Your task to perform on an android device: turn off data saver in the chrome app Image 0: 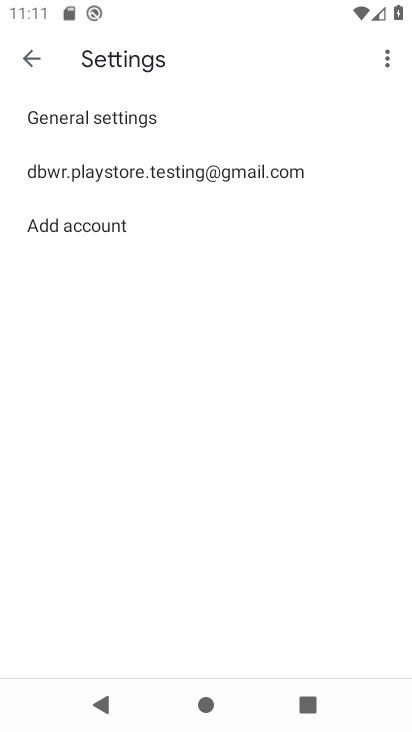
Step 0: press home button
Your task to perform on an android device: turn off data saver in the chrome app Image 1: 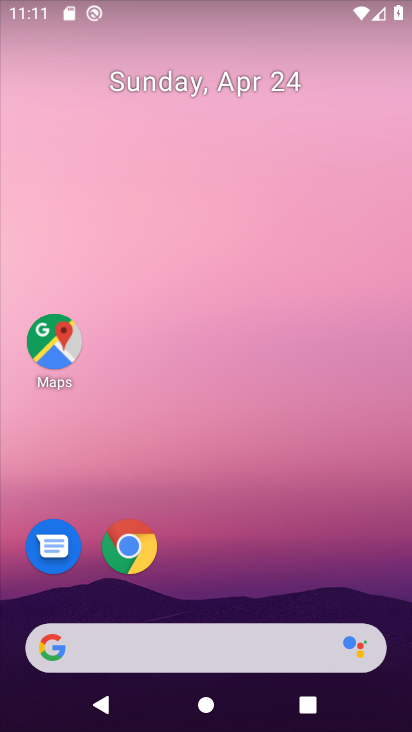
Step 1: click (130, 551)
Your task to perform on an android device: turn off data saver in the chrome app Image 2: 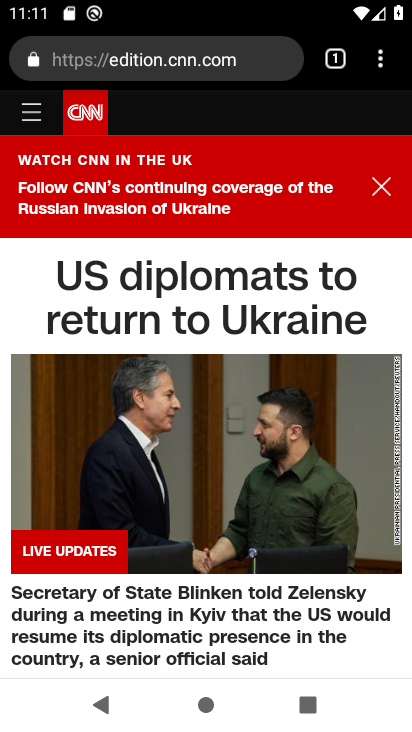
Step 2: click (380, 59)
Your task to perform on an android device: turn off data saver in the chrome app Image 3: 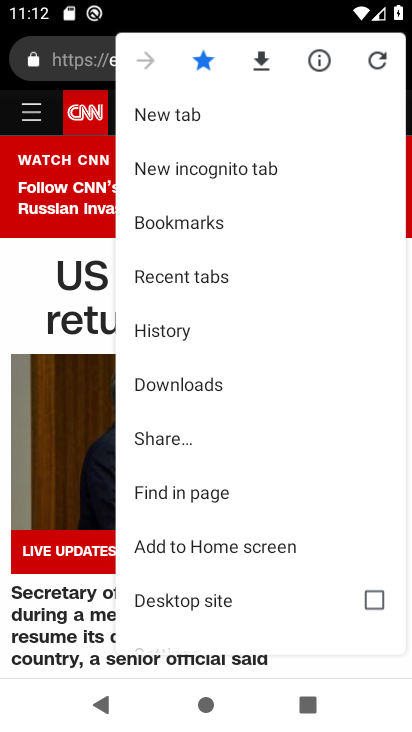
Step 3: drag from (219, 579) to (262, 132)
Your task to perform on an android device: turn off data saver in the chrome app Image 4: 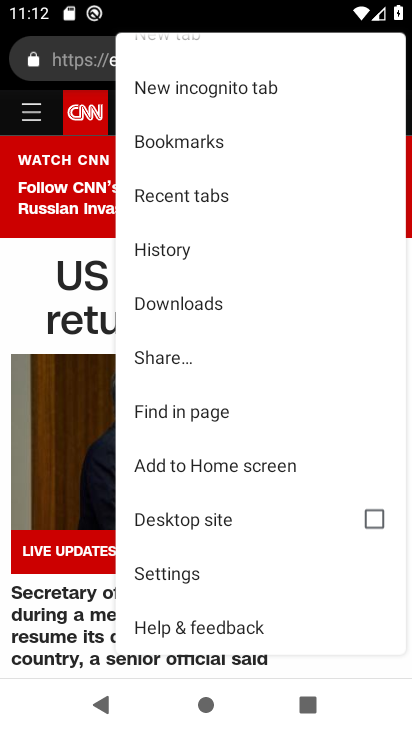
Step 4: click (198, 575)
Your task to perform on an android device: turn off data saver in the chrome app Image 5: 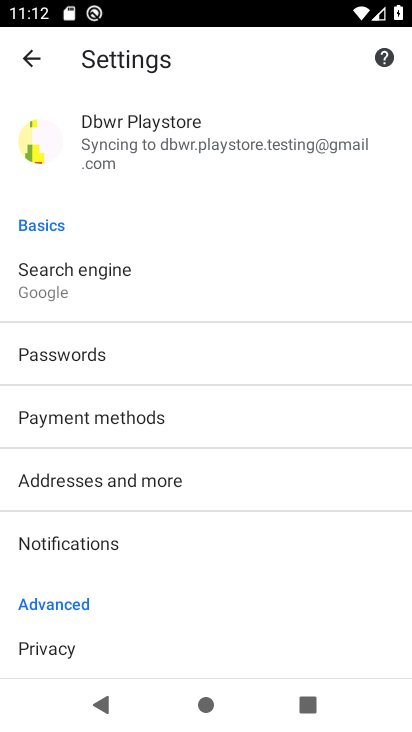
Step 5: task complete